Your task to perform on an android device: Go to calendar. Show me events next week Image 0: 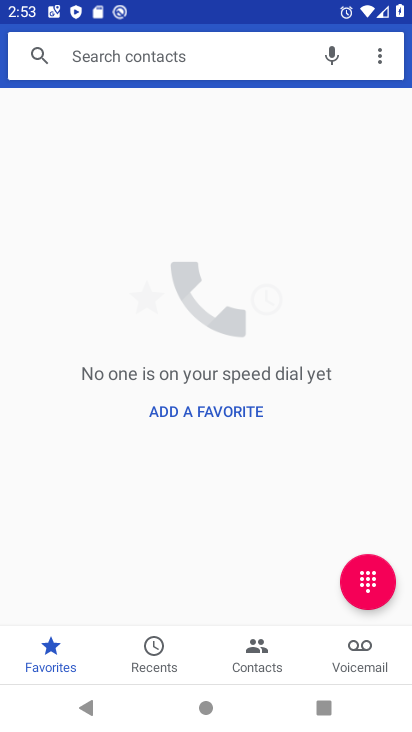
Step 0: press home button
Your task to perform on an android device: Go to calendar. Show me events next week Image 1: 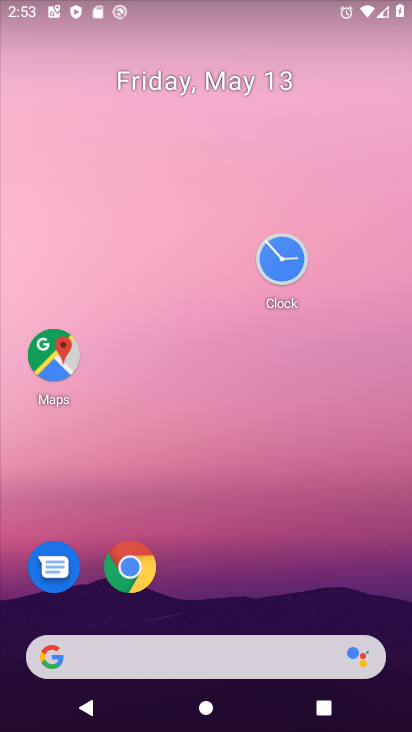
Step 1: drag from (287, 558) to (209, 35)
Your task to perform on an android device: Go to calendar. Show me events next week Image 2: 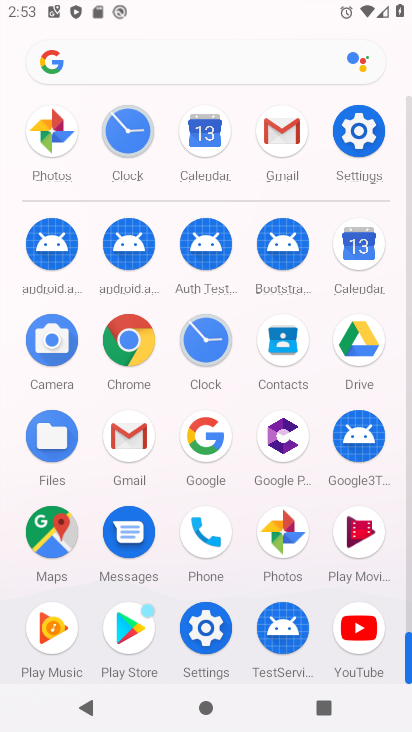
Step 2: click (346, 249)
Your task to perform on an android device: Go to calendar. Show me events next week Image 3: 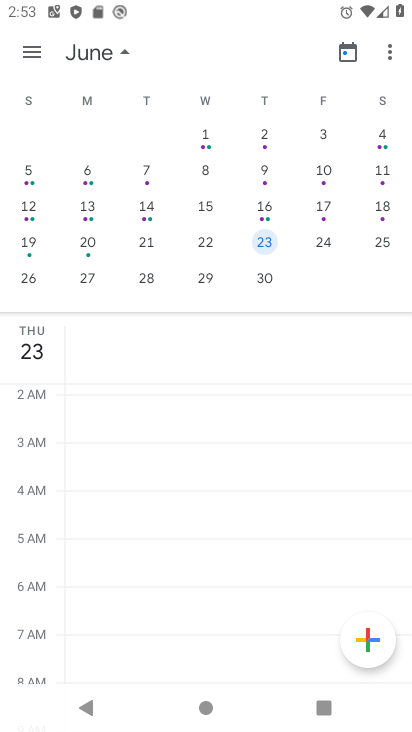
Step 3: drag from (16, 208) to (298, 107)
Your task to perform on an android device: Go to calendar. Show me events next week Image 4: 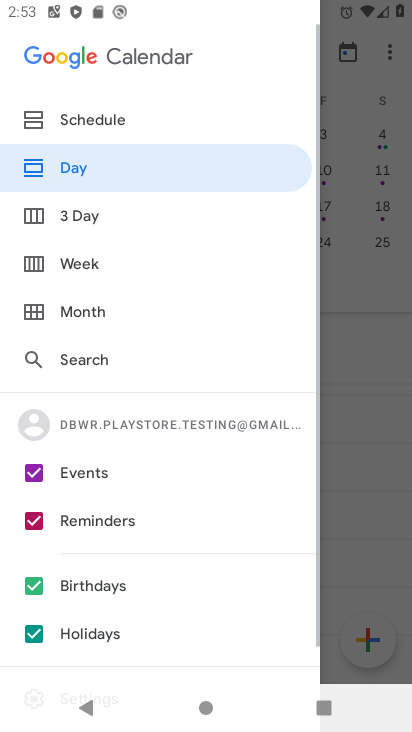
Step 4: click (359, 198)
Your task to perform on an android device: Go to calendar. Show me events next week Image 5: 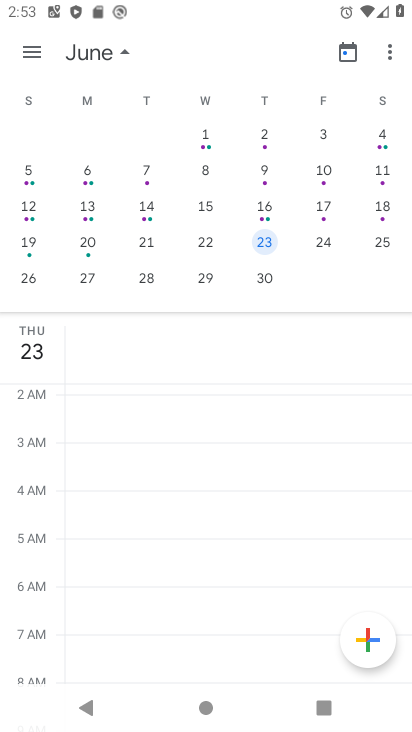
Step 5: drag from (140, 212) to (401, 169)
Your task to perform on an android device: Go to calendar. Show me events next week Image 6: 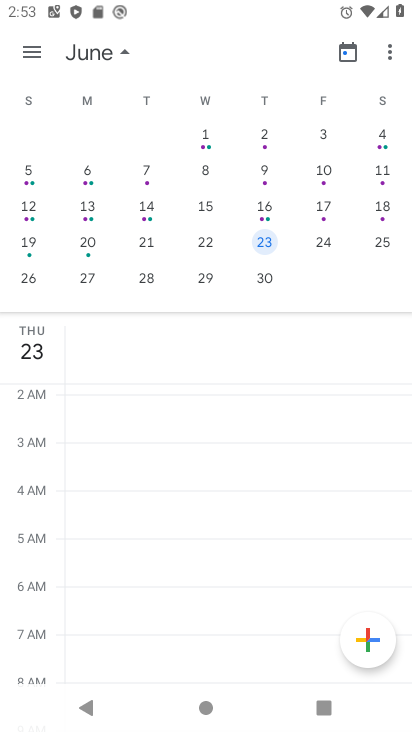
Step 6: drag from (122, 191) to (410, 190)
Your task to perform on an android device: Go to calendar. Show me events next week Image 7: 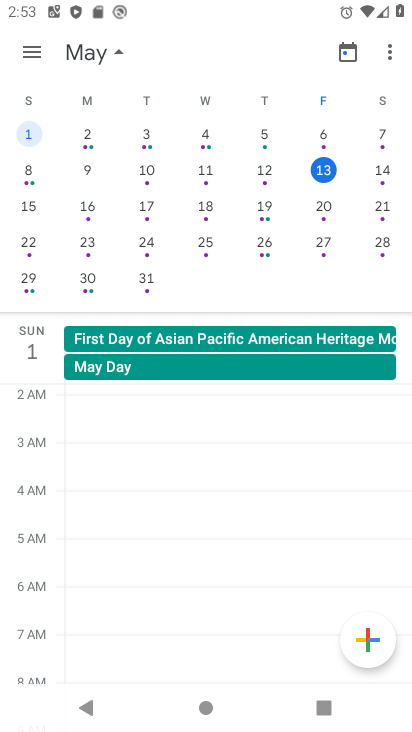
Step 7: click (24, 49)
Your task to perform on an android device: Go to calendar. Show me events next week Image 8: 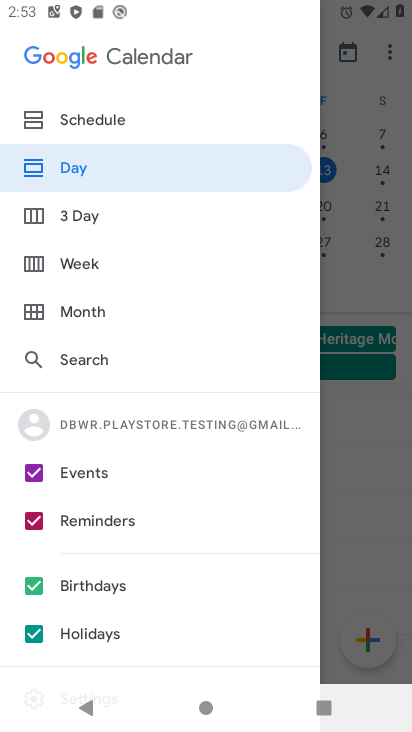
Step 8: click (49, 252)
Your task to perform on an android device: Go to calendar. Show me events next week Image 9: 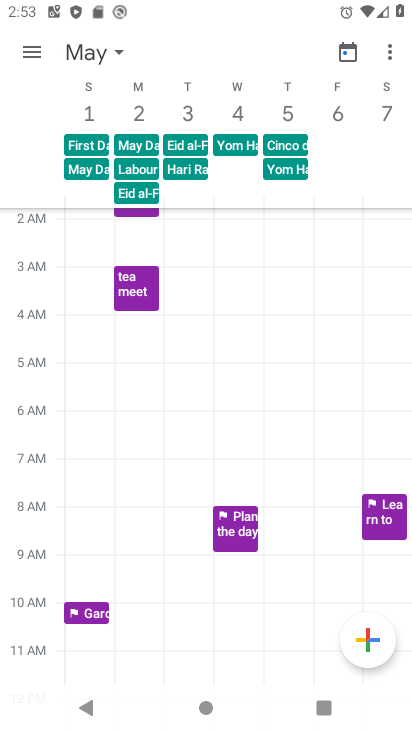
Step 9: task complete